Your task to perform on an android device: View the shopping cart on newegg.com. Add "jbl flip 4" to the cart on newegg.com Image 0: 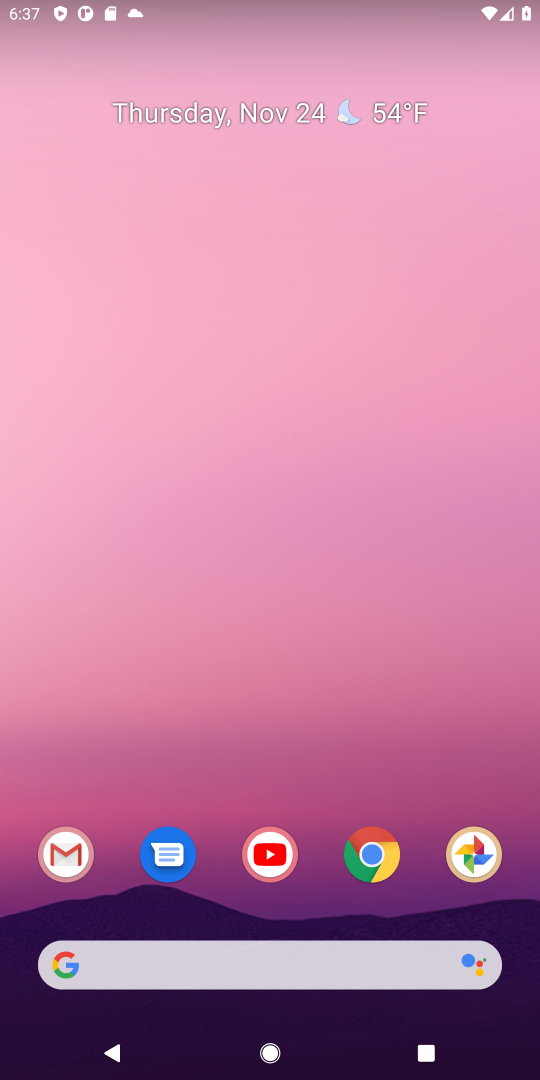
Step 0: click (379, 866)
Your task to perform on an android device: View the shopping cart on newegg.com. Add "jbl flip 4" to the cart on newegg.com Image 1: 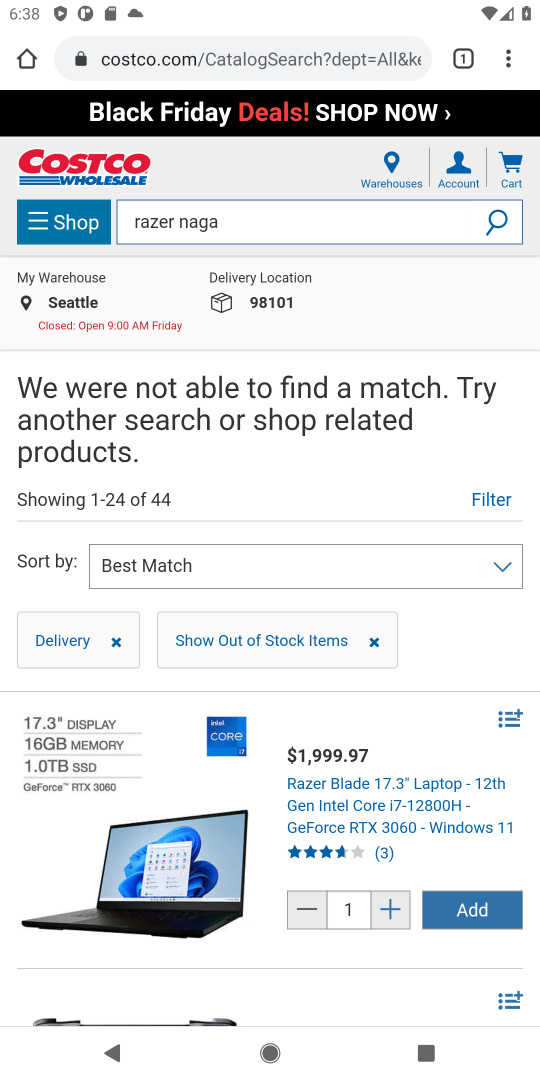
Step 1: click (196, 61)
Your task to perform on an android device: View the shopping cart on newegg.com. Add "jbl flip 4" to the cart on newegg.com Image 2: 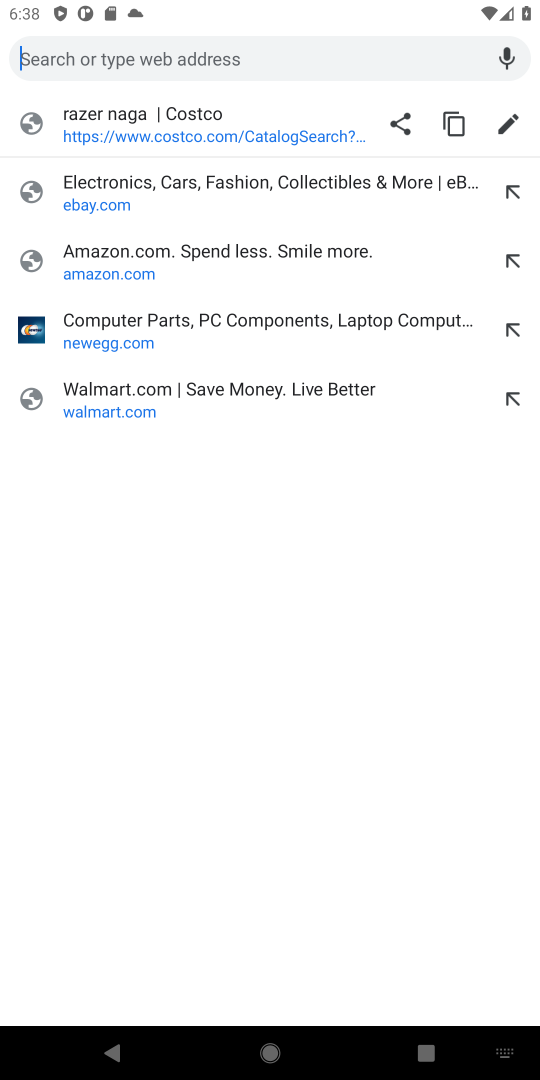
Step 2: click (79, 340)
Your task to perform on an android device: View the shopping cart on newegg.com. Add "jbl flip 4" to the cart on newegg.com Image 3: 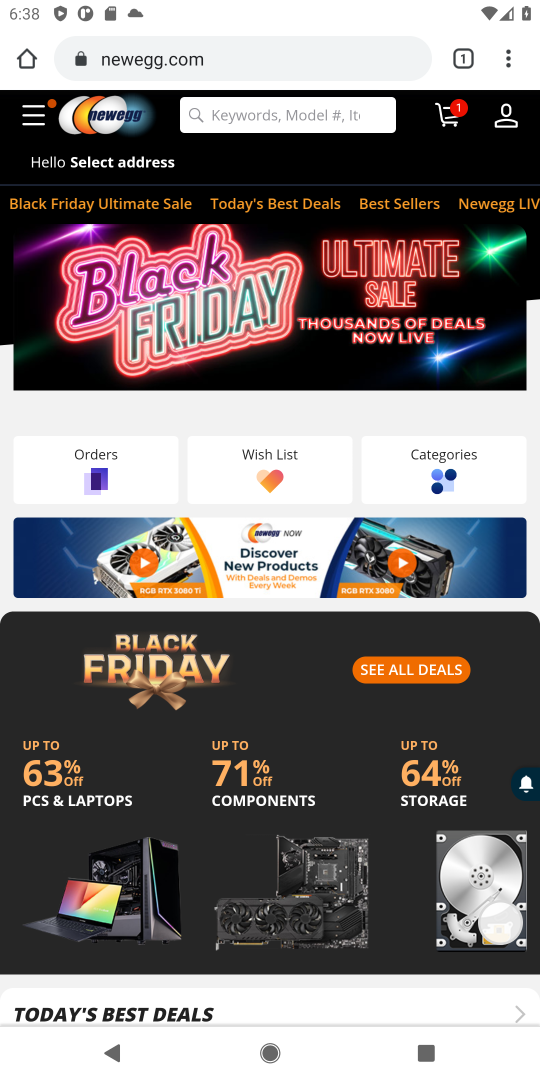
Step 3: click (449, 121)
Your task to perform on an android device: View the shopping cart on newegg.com. Add "jbl flip 4" to the cart on newegg.com Image 4: 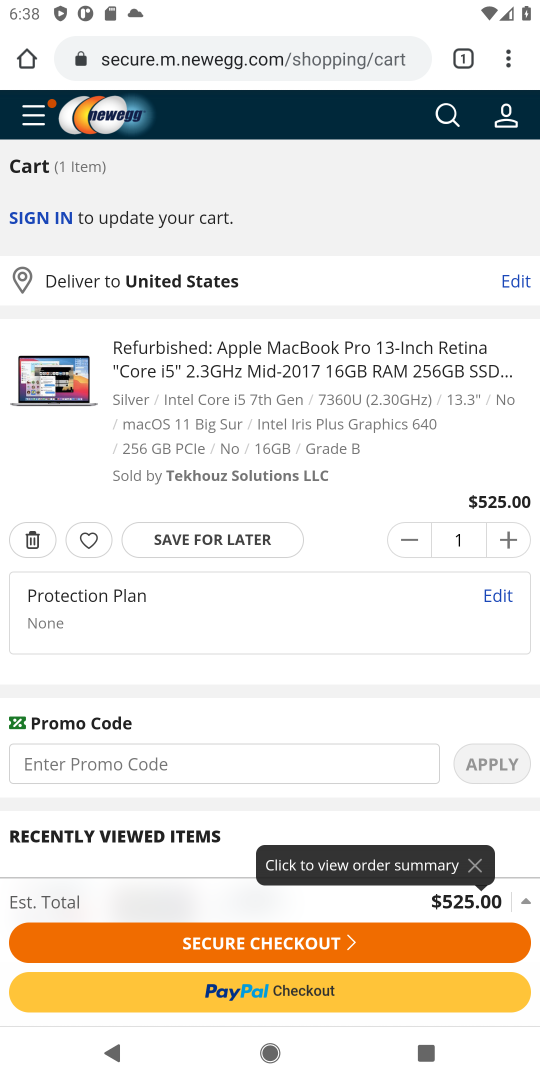
Step 4: drag from (231, 628) to (238, 367)
Your task to perform on an android device: View the shopping cart on newegg.com. Add "jbl flip 4" to the cart on newegg.com Image 5: 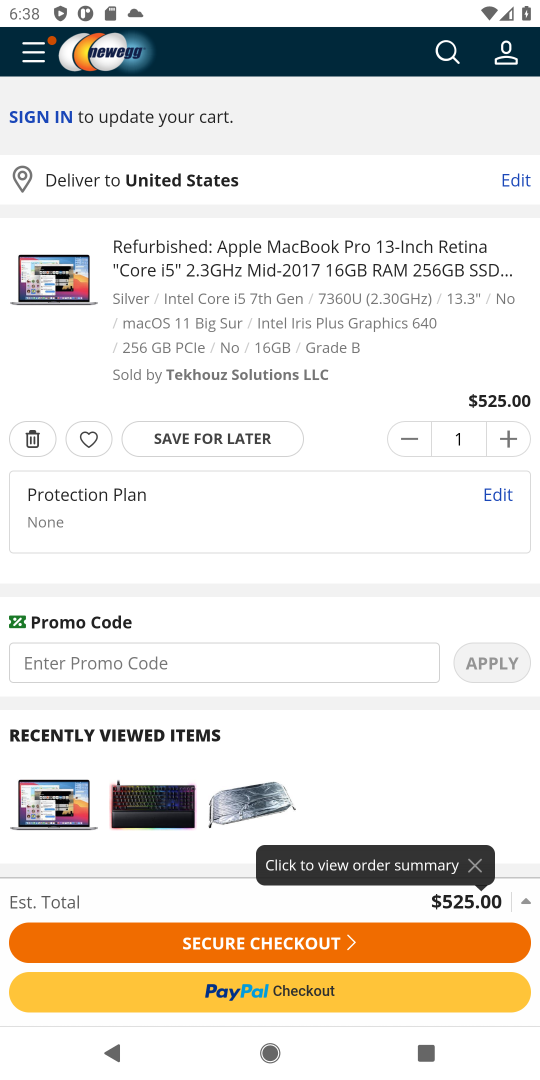
Step 5: drag from (365, 159) to (352, 377)
Your task to perform on an android device: View the shopping cart on newegg.com. Add "jbl flip 4" to the cart on newegg.com Image 6: 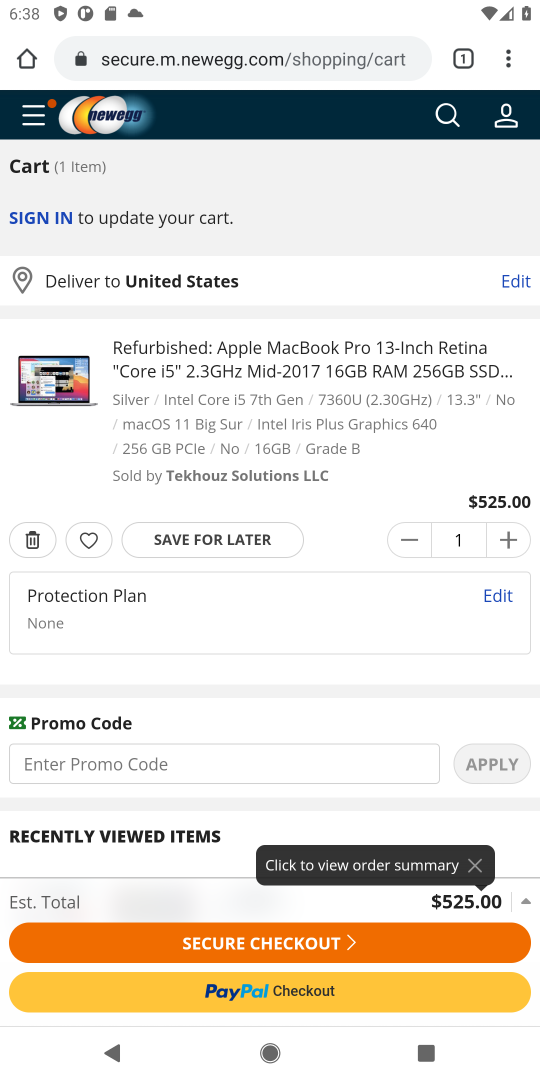
Step 6: click (440, 115)
Your task to perform on an android device: View the shopping cart on newegg.com. Add "jbl flip 4" to the cart on newegg.com Image 7: 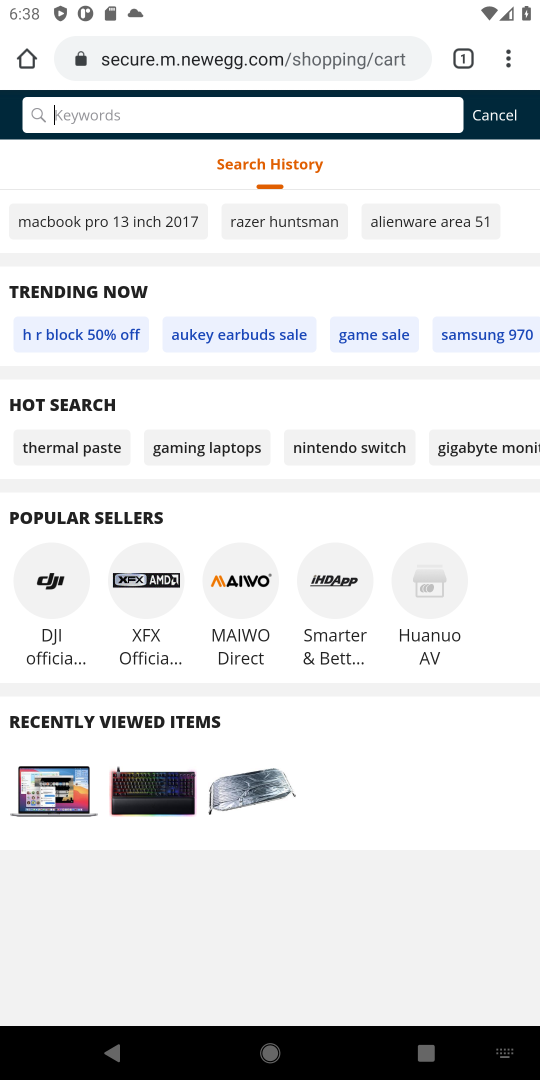
Step 7: type "jbl flip 4"
Your task to perform on an android device: View the shopping cart on newegg.com. Add "jbl flip 4" to the cart on newegg.com Image 8: 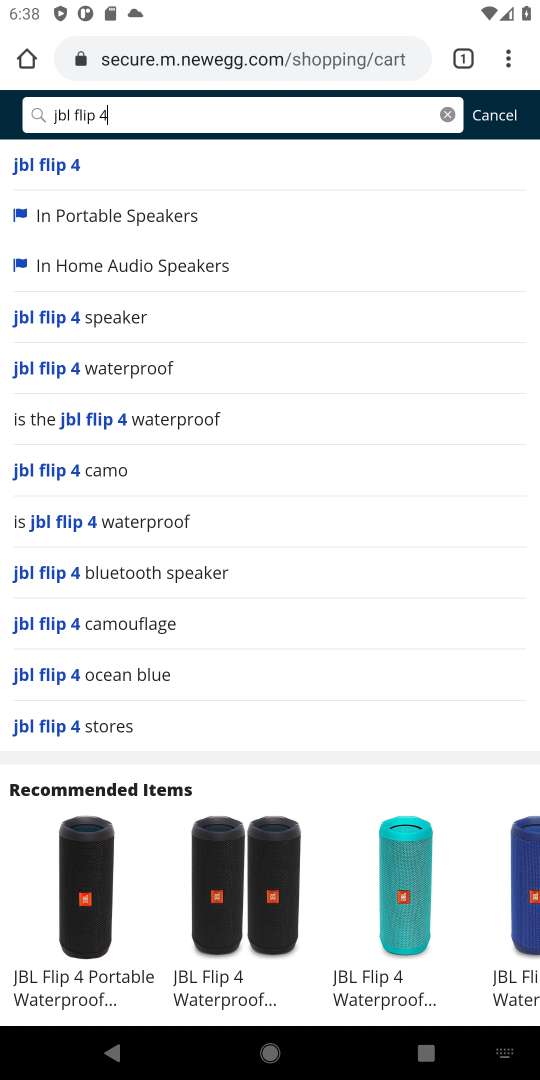
Step 8: click (42, 169)
Your task to perform on an android device: View the shopping cart on newegg.com. Add "jbl flip 4" to the cart on newegg.com Image 9: 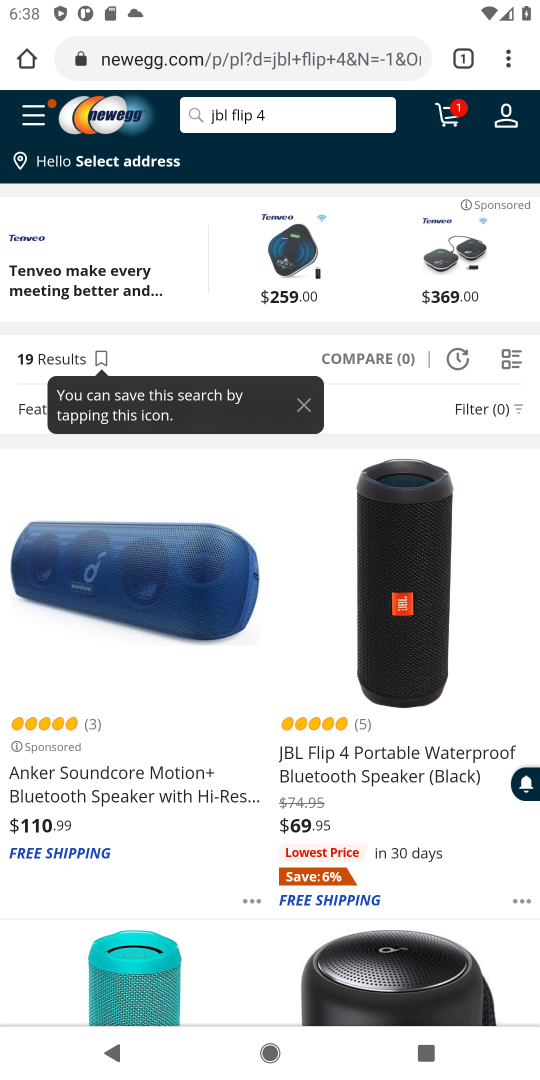
Step 9: click (427, 669)
Your task to perform on an android device: View the shopping cart on newegg.com. Add "jbl flip 4" to the cart on newegg.com Image 10: 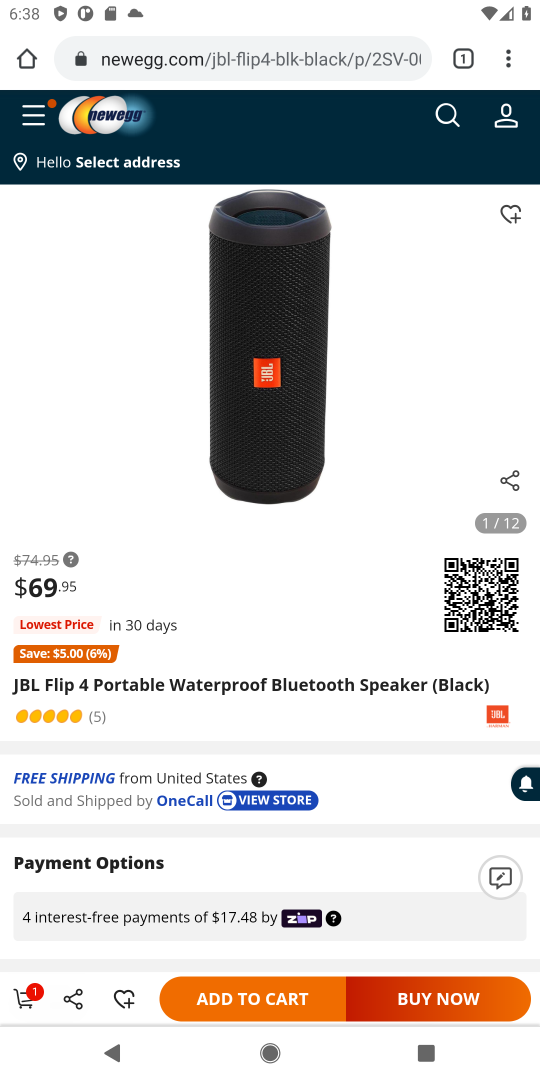
Step 10: click (224, 1000)
Your task to perform on an android device: View the shopping cart on newegg.com. Add "jbl flip 4" to the cart on newegg.com Image 11: 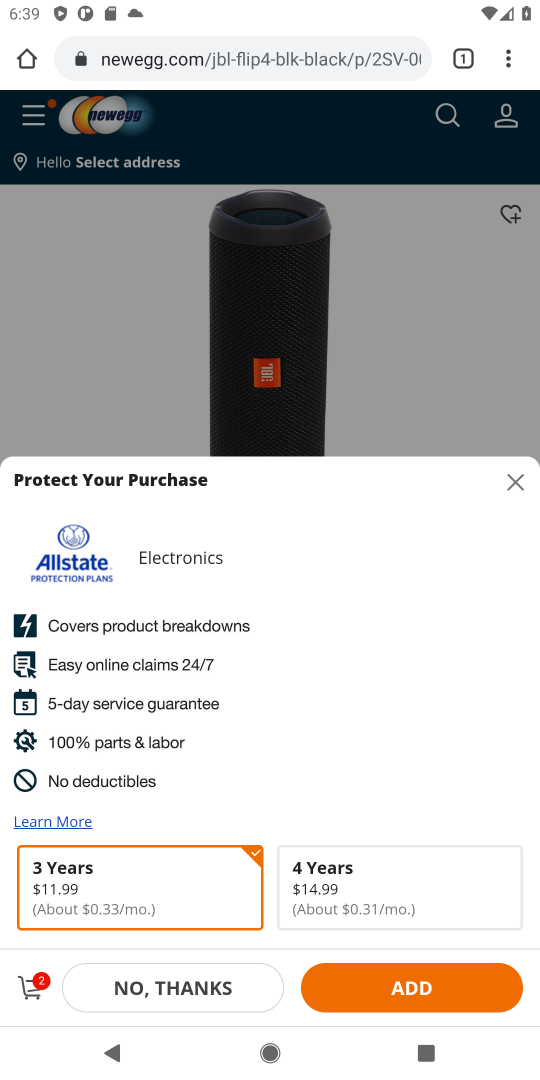
Step 11: task complete